Your task to perform on an android device: Go to wifi settings Image 0: 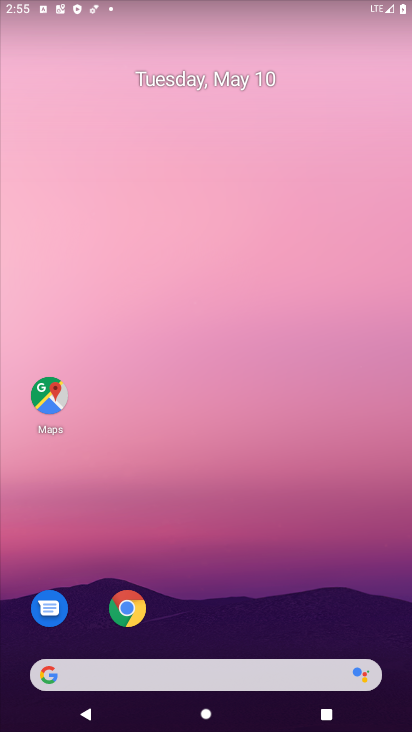
Step 0: drag from (327, 440) to (278, 145)
Your task to perform on an android device: Go to wifi settings Image 1: 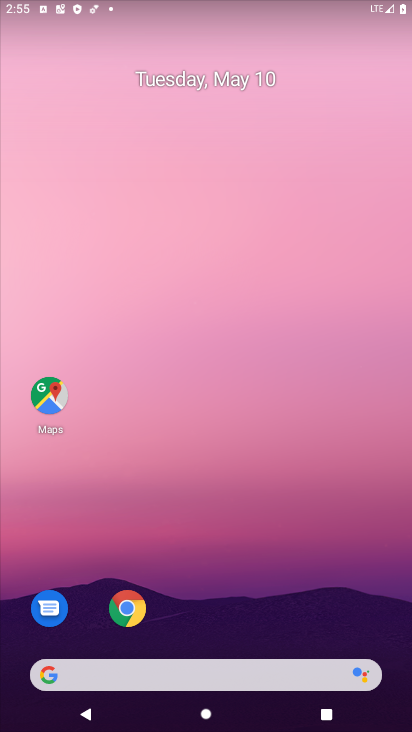
Step 1: drag from (392, 666) to (271, 175)
Your task to perform on an android device: Go to wifi settings Image 2: 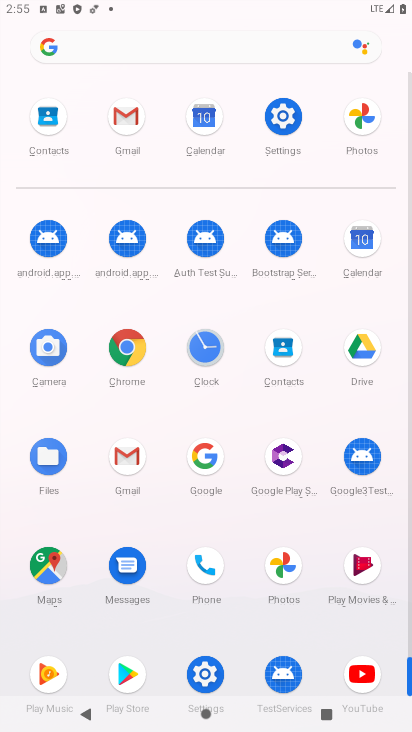
Step 2: click (408, 643)
Your task to perform on an android device: Go to wifi settings Image 3: 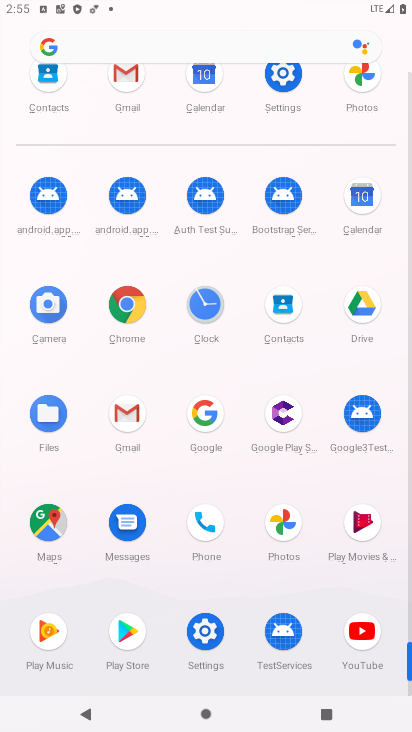
Step 3: click (204, 630)
Your task to perform on an android device: Go to wifi settings Image 4: 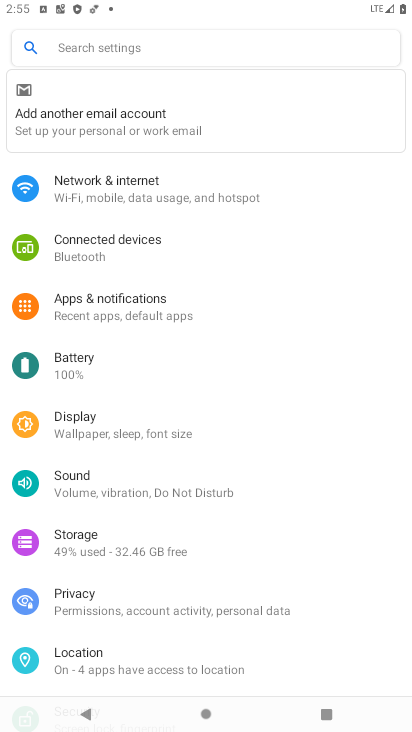
Step 4: click (93, 180)
Your task to perform on an android device: Go to wifi settings Image 5: 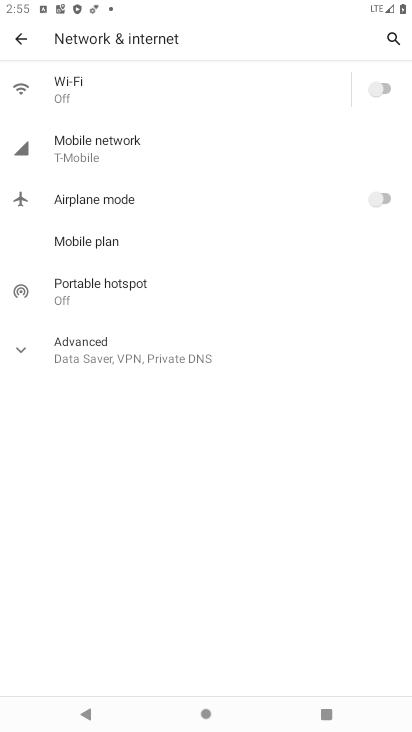
Step 5: click (386, 88)
Your task to perform on an android device: Go to wifi settings Image 6: 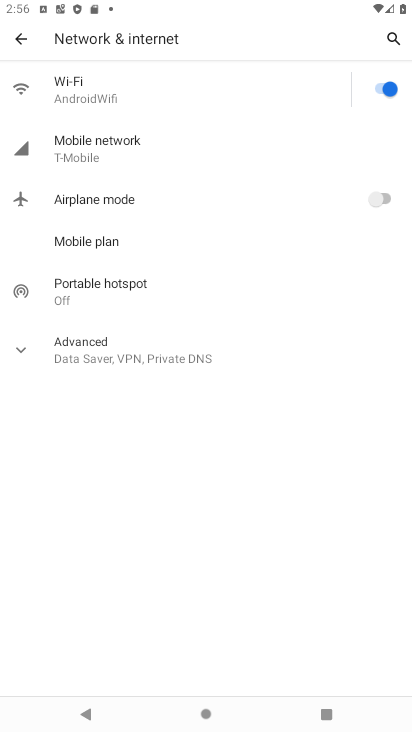
Step 6: task complete